Your task to perform on an android device: Open accessibility settings Image 0: 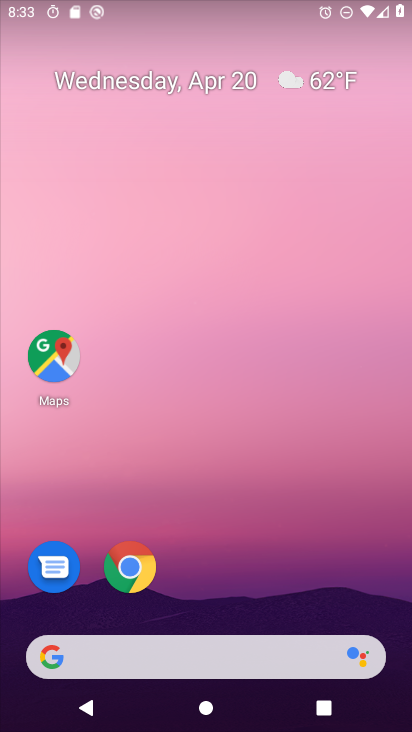
Step 0: drag from (377, 568) to (382, 0)
Your task to perform on an android device: Open accessibility settings Image 1: 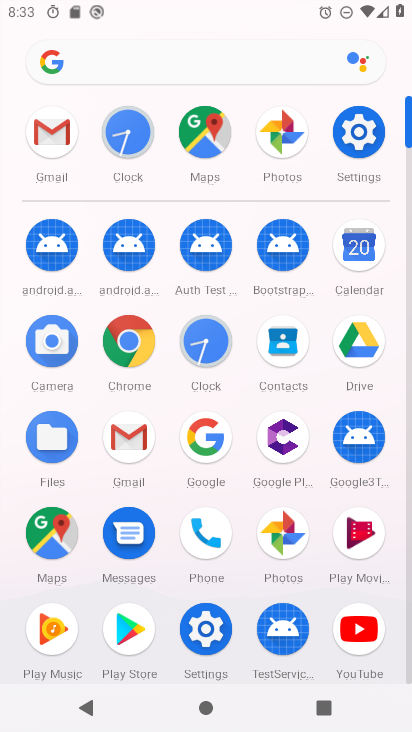
Step 1: click (360, 137)
Your task to perform on an android device: Open accessibility settings Image 2: 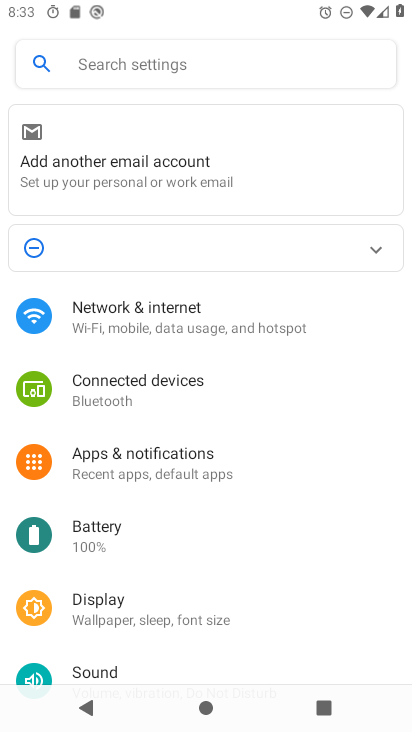
Step 2: drag from (350, 596) to (350, 95)
Your task to perform on an android device: Open accessibility settings Image 3: 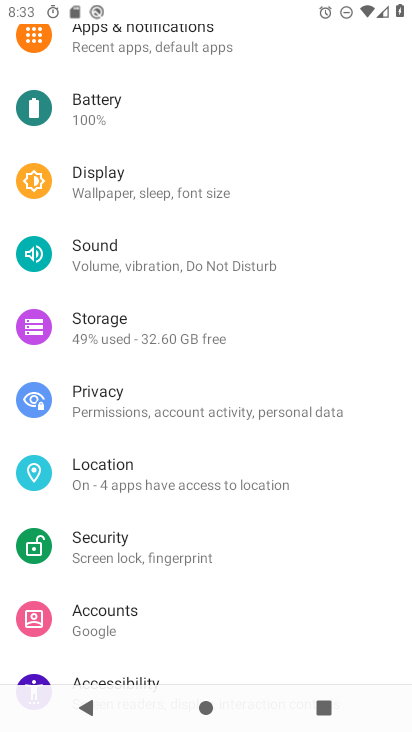
Step 3: drag from (375, 556) to (355, 206)
Your task to perform on an android device: Open accessibility settings Image 4: 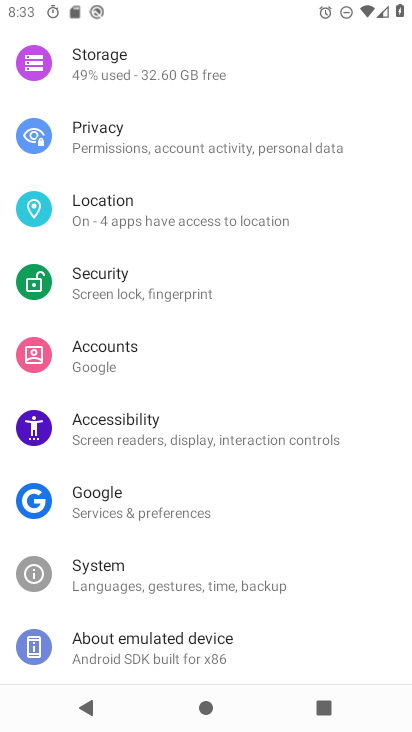
Step 4: click (116, 438)
Your task to perform on an android device: Open accessibility settings Image 5: 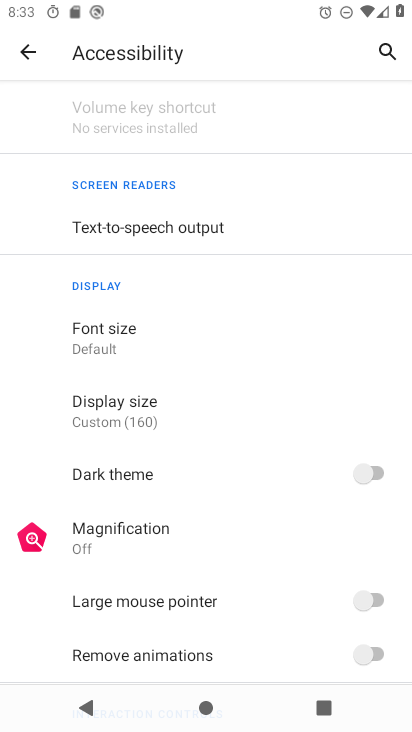
Step 5: task complete